Your task to perform on an android device: see creations saved in the google photos Image 0: 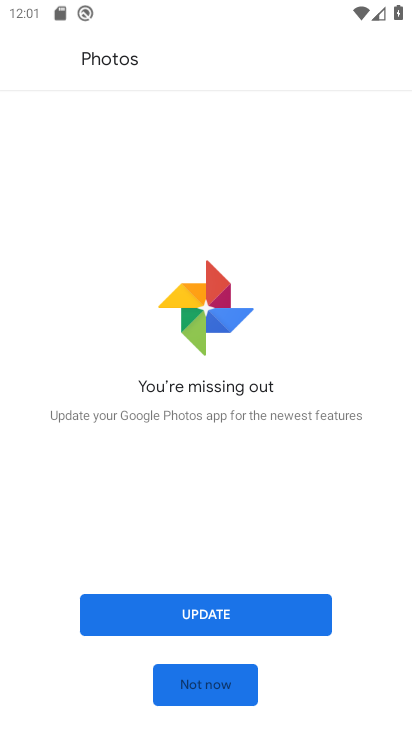
Step 0: press home button
Your task to perform on an android device: see creations saved in the google photos Image 1: 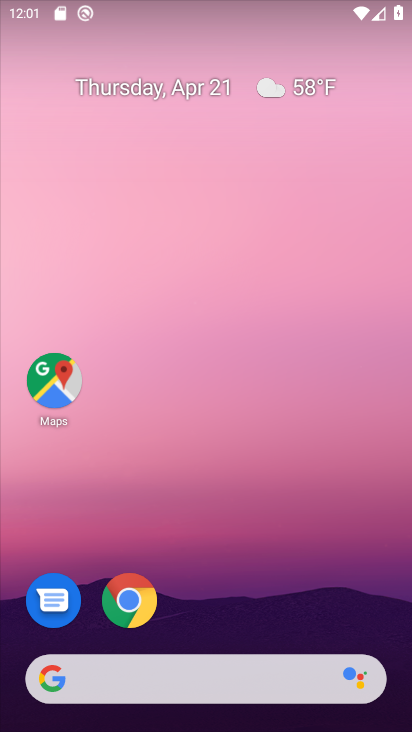
Step 1: drag from (270, 577) to (271, 134)
Your task to perform on an android device: see creations saved in the google photos Image 2: 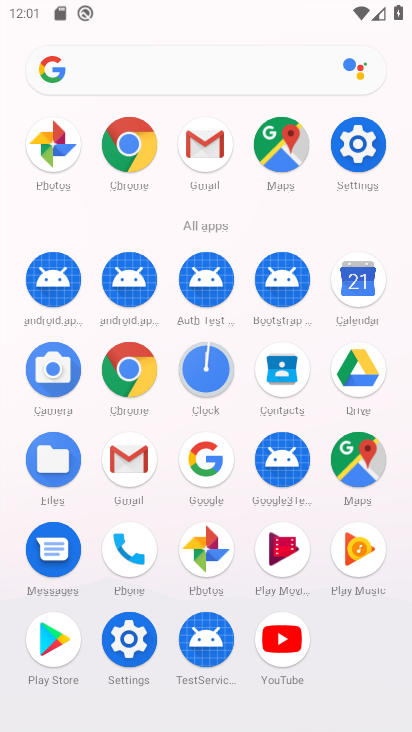
Step 2: click (56, 137)
Your task to perform on an android device: see creations saved in the google photos Image 3: 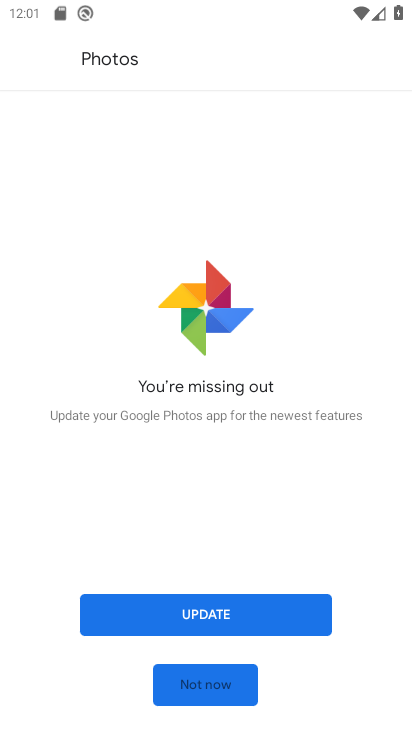
Step 3: click (255, 616)
Your task to perform on an android device: see creations saved in the google photos Image 4: 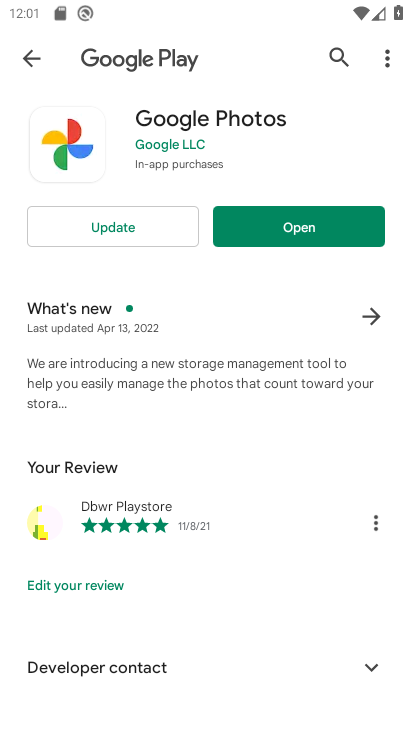
Step 4: click (325, 227)
Your task to perform on an android device: see creations saved in the google photos Image 5: 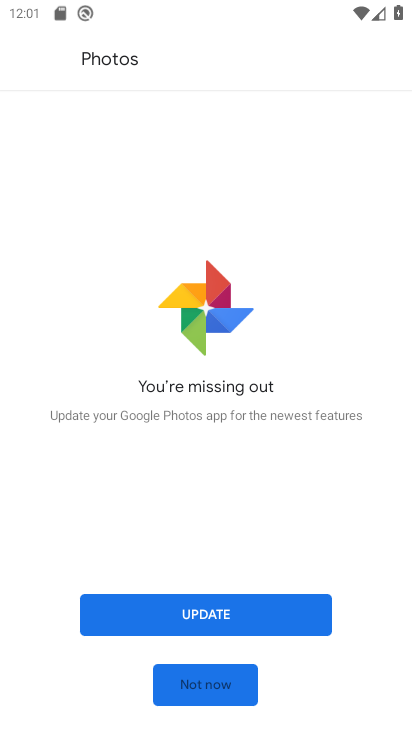
Step 5: click (224, 681)
Your task to perform on an android device: see creations saved in the google photos Image 6: 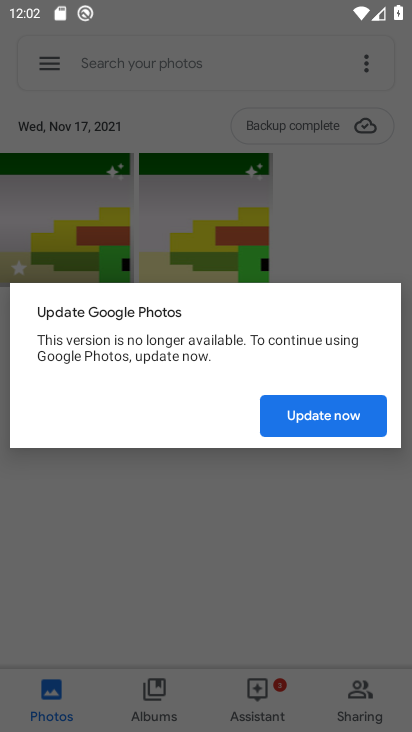
Step 6: click (354, 418)
Your task to perform on an android device: see creations saved in the google photos Image 7: 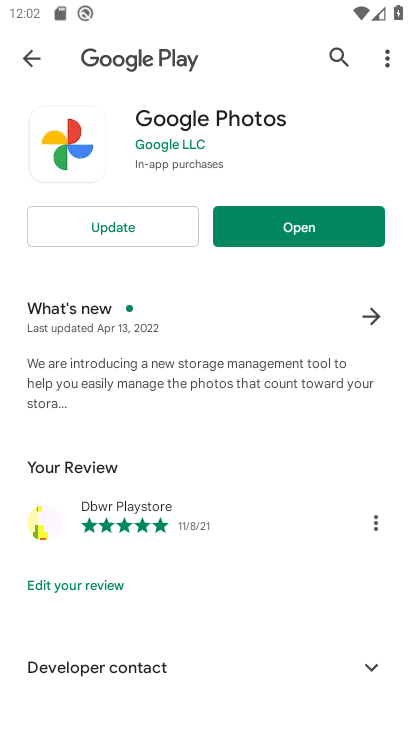
Step 7: press back button
Your task to perform on an android device: see creations saved in the google photos Image 8: 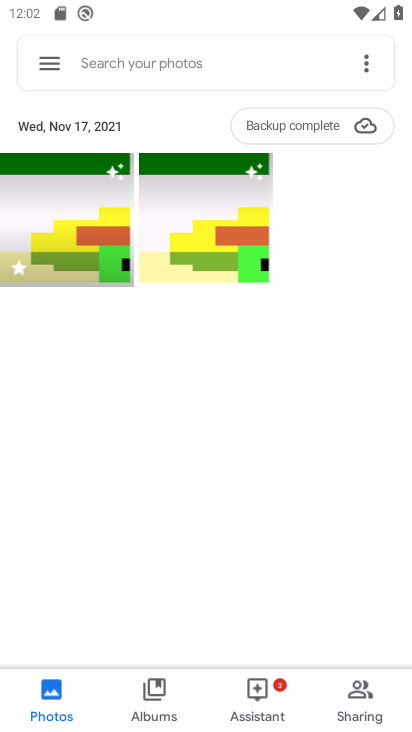
Step 8: click (143, 59)
Your task to perform on an android device: see creations saved in the google photos Image 9: 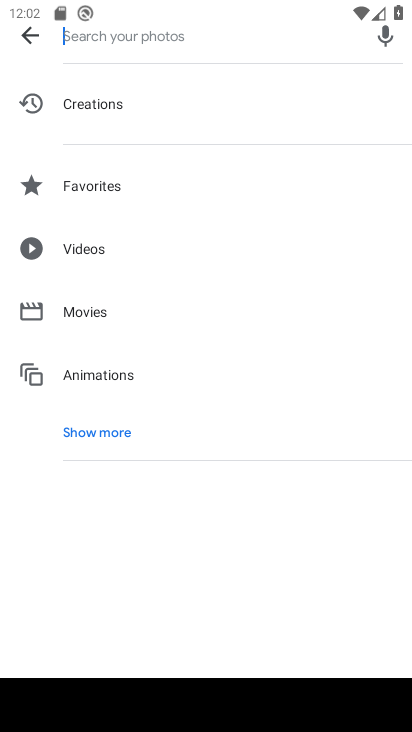
Step 9: click (124, 428)
Your task to perform on an android device: see creations saved in the google photos Image 10: 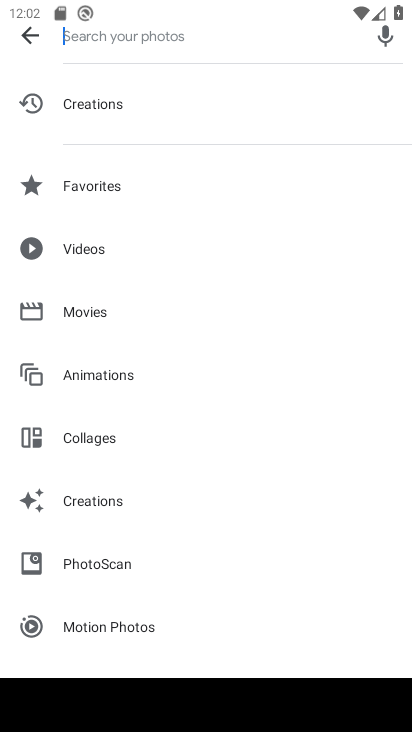
Step 10: click (101, 492)
Your task to perform on an android device: see creations saved in the google photos Image 11: 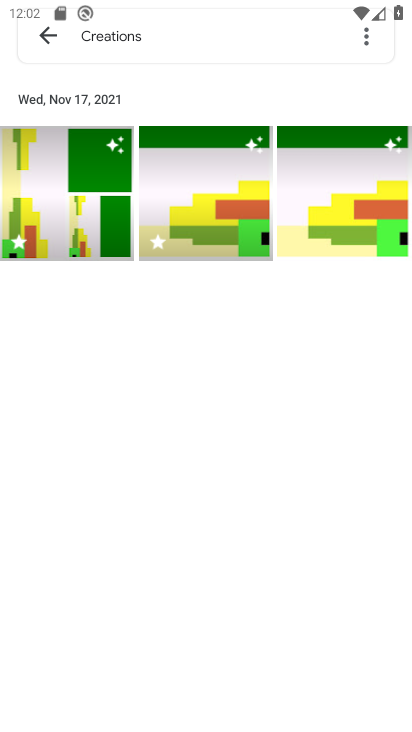
Step 11: task complete